Your task to perform on an android device: turn on translation in the chrome app Image 0: 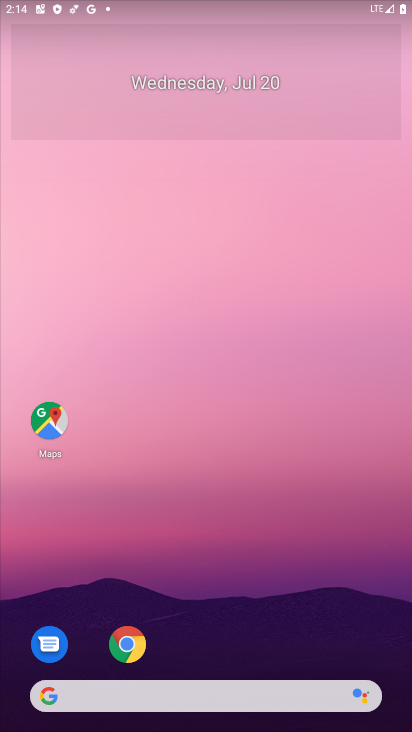
Step 0: click (128, 644)
Your task to perform on an android device: turn on translation in the chrome app Image 1: 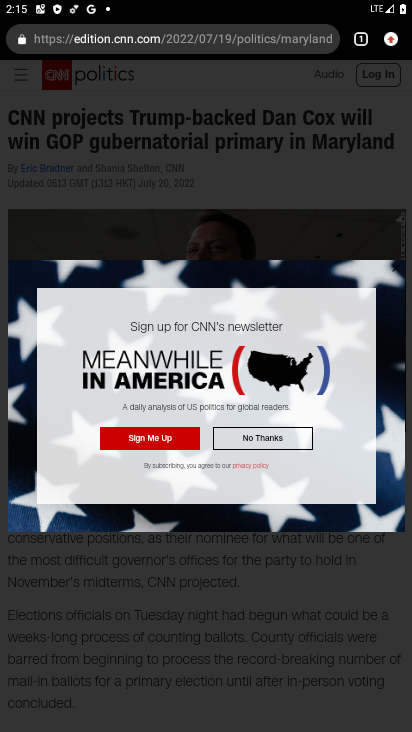
Step 1: click (396, 42)
Your task to perform on an android device: turn on translation in the chrome app Image 2: 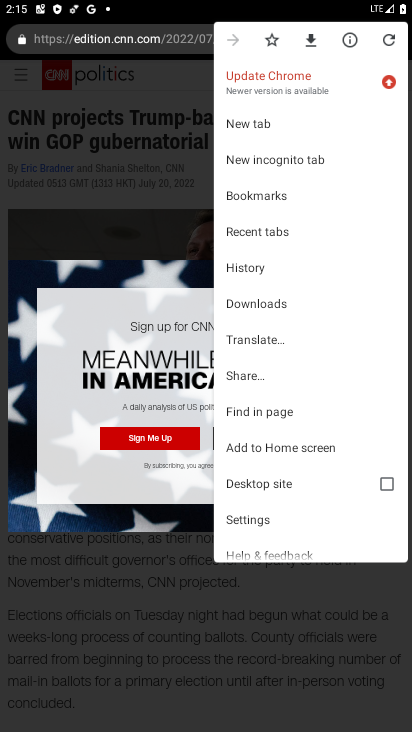
Step 2: click (245, 519)
Your task to perform on an android device: turn on translation in the chrome app Image 3: 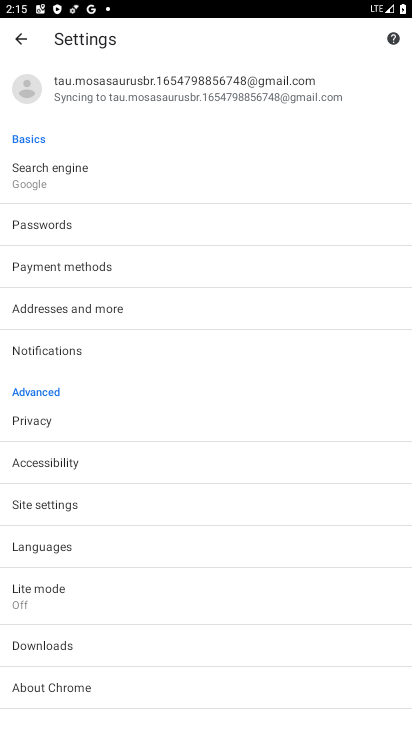
Step 3: click (58, 546)
Your task to perform on an android device: turn on translation in the chrome app Image 4: 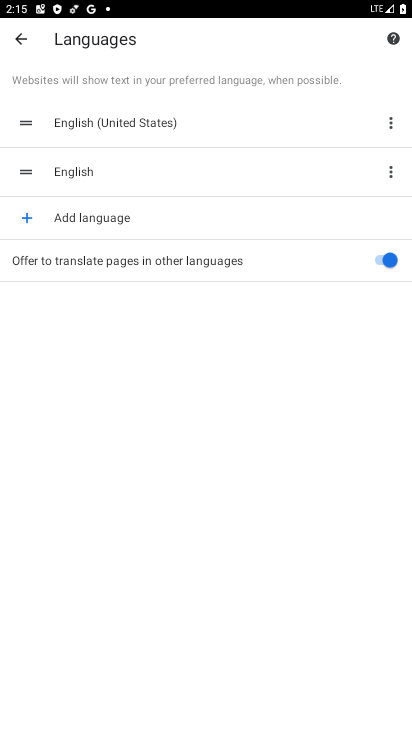
Step 4: task complete